Your task to perform on an android device: turn on notifications settings in the gmail app Image 0: 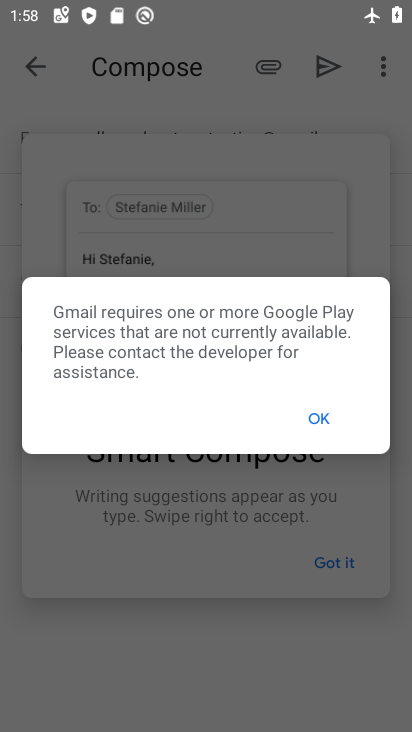
Step 0: press home button
Your task to perform on an android device: turn on notifications settings in the gmail app Image 1: 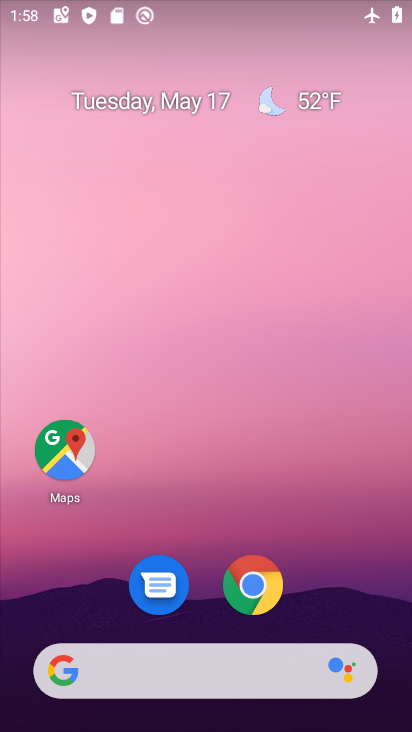
Step 1: drag from (334, 523) to (364, 124)
Your task to perform on an android device: turn on notifications settings in the gmail app Image 2: 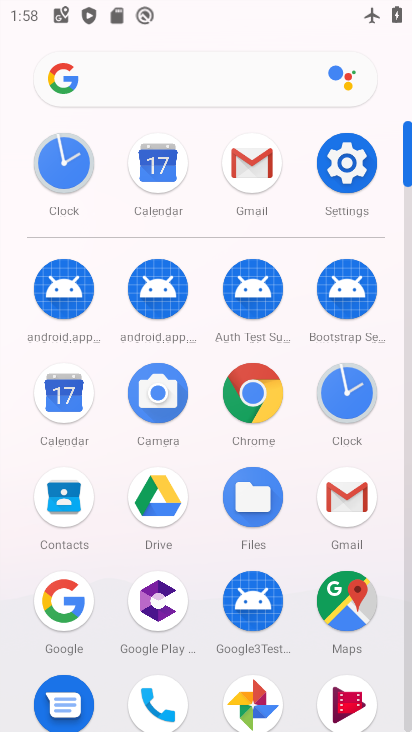
Step 2: click (258, 162)
Your task to perform on an android device: turn on notifications settings in the gmail app Image 3: 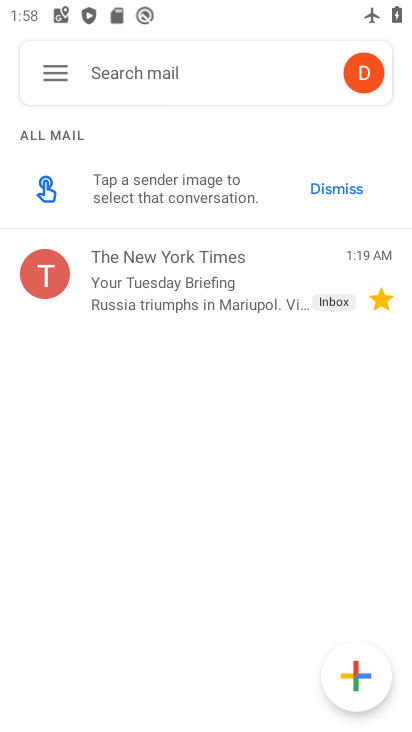
Step 3: click (54, 62)
Your task to perform on an android device: turn on notifications settings in the gmail app Image 4: 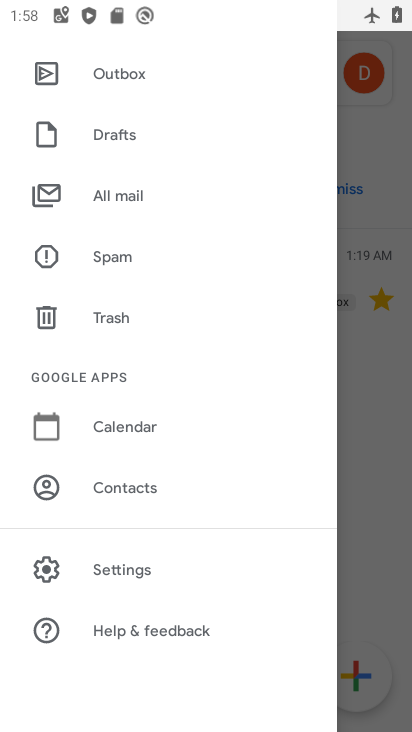
Step 4: click (118, 566)
Your task to perform on an android device: turn on notifications settings in the gmail app Image 5: 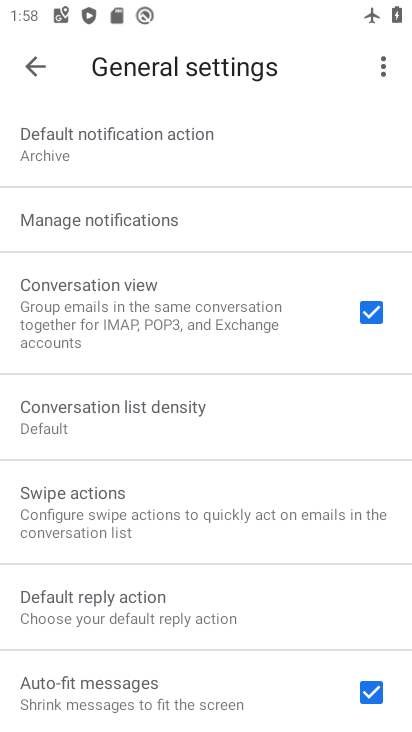
Step 5: click (275, 226)
Your task to perform on an android device: turn on notifications settings in the gmail app Image 6: 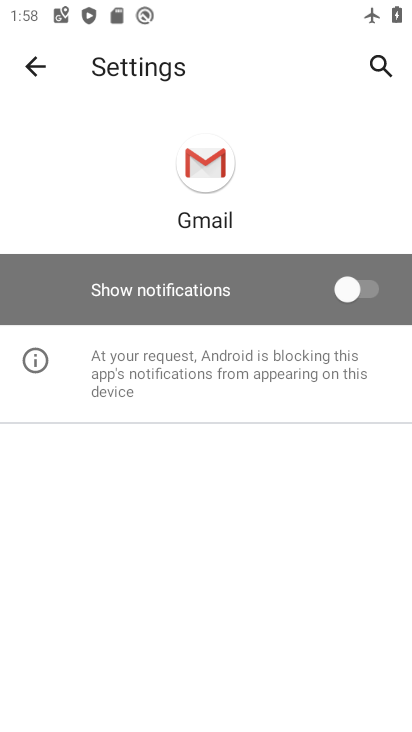
Step 6: click (356, 285)
Your task to perform on an android device: turn on notifications settings in the gmail app Image 7: 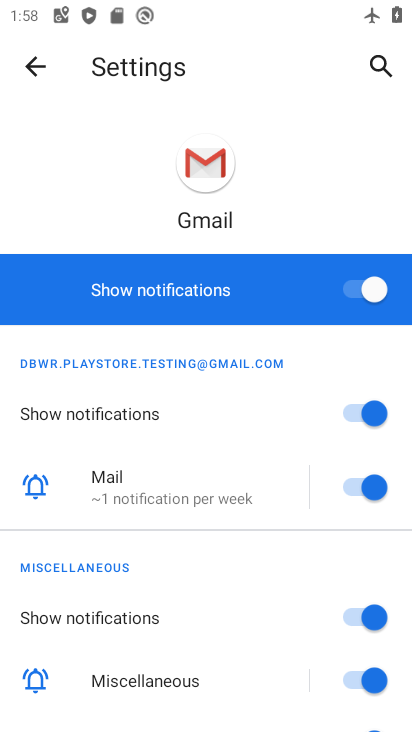
Step 7: task complete